Your task to perform on an android device: turn on priority inbox in the gmail app Image 0: 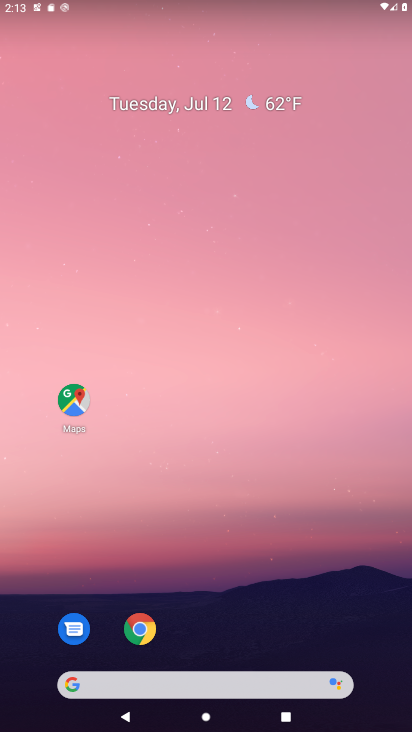
Step 0: press home button
Your task to perform on an android device: turn on priority inbox in the gmail app Image 1: 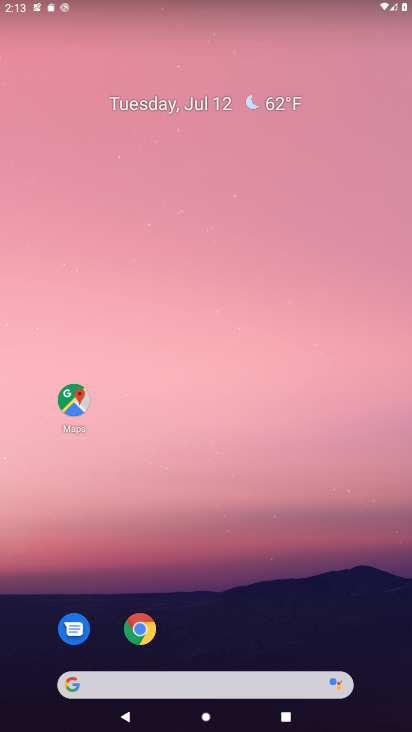
Step 1: drag from (219, 652) to (256, 82)
Your task to perform on an android device: turn on priority inbox in the gmail app Image 2: 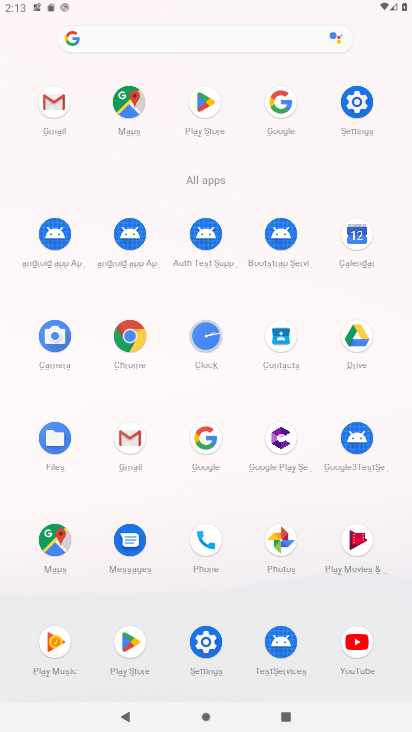
Step 2: click (132, 440)
Your task to perform on an android device: turn on priority inbox in the gmail app Image 3: 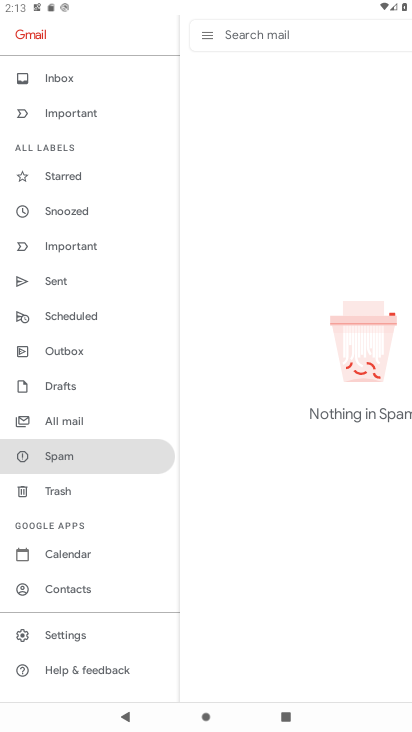
Step 3: click (87, 638)
Your task to perform on an android device: turn on priority inbox in the gmail app Image 4: 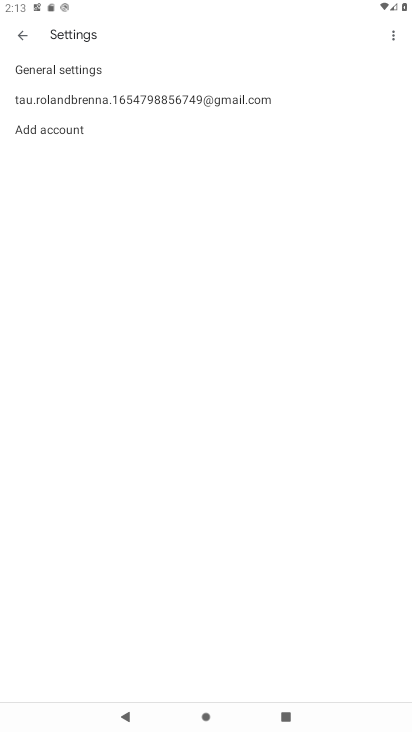
Step 4: click (147, 93)
Your task to perform on an android device: turn on priority inbox in the gmail app Image 5: 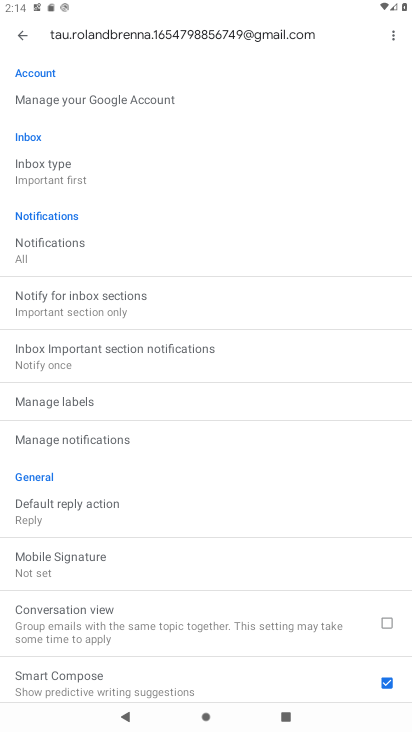
Step 5: click (80, 170)
Your task to perform on an android device: turn on priority inbox in the gmail app Image 6: 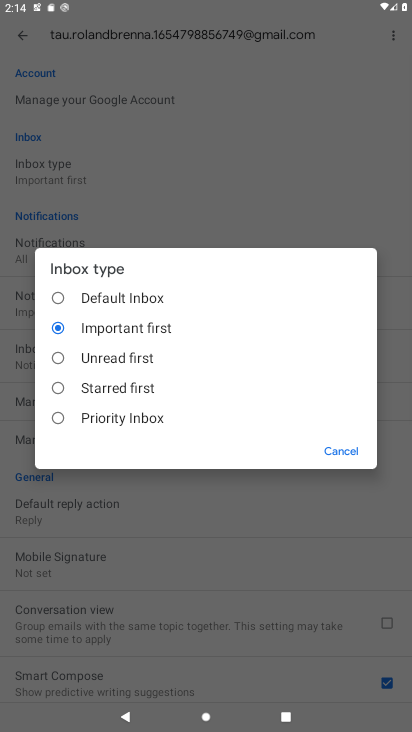
Step 6: click (112, 291)
Your task to perform on an android device: turn on priority inbox in the gmail app Image 7: 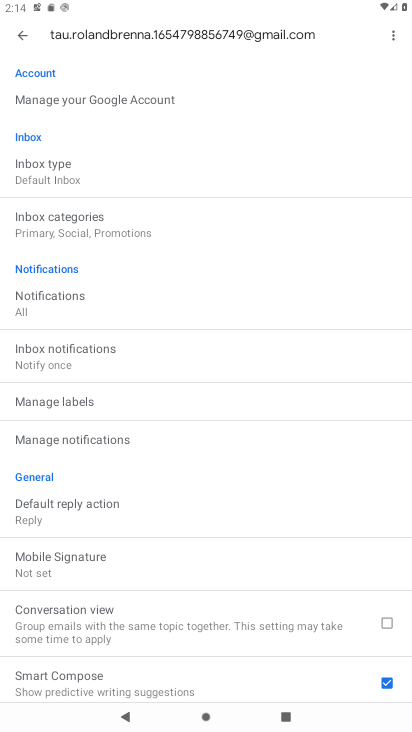
Step 7: task complete